Your task to perform on an android device: Open Reddit.com Image 0: 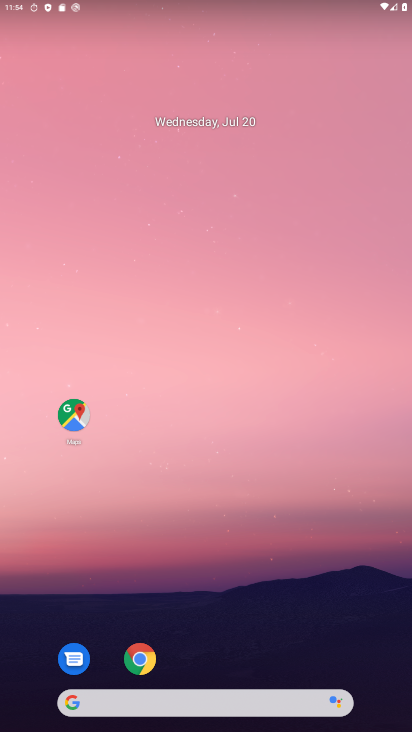
Step 0: click (265, 79)
Your task to perform on an android device: Open Reddit.com Image 1: 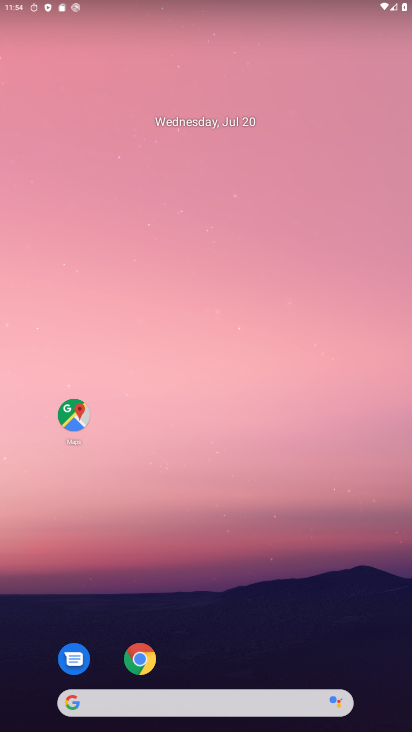
Step 1: press home button
Your task to perform on an android device: Open Reddit.com Image 2: 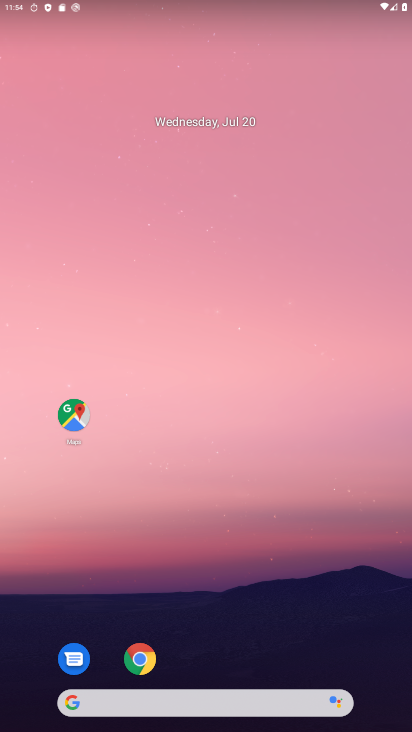
Step 2: drag from (272, 309) to (247, 25)
Your task to perform on an android device: Open Reddit.com Image 3: 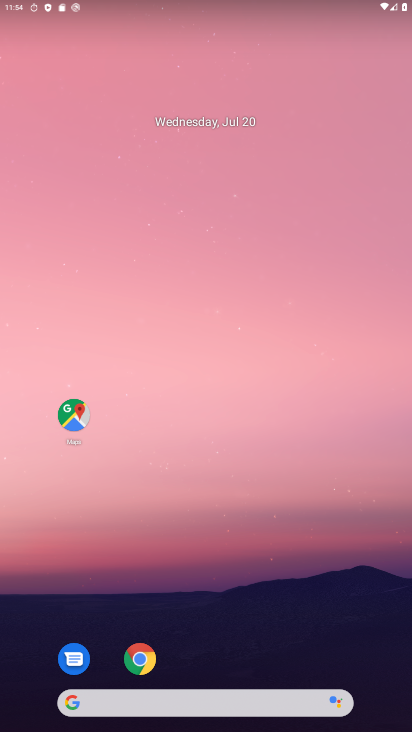
Step 3: drag from (304, 582) to (225, 25)
Your task to perform on an android device: Open Reddit.com Image 4: 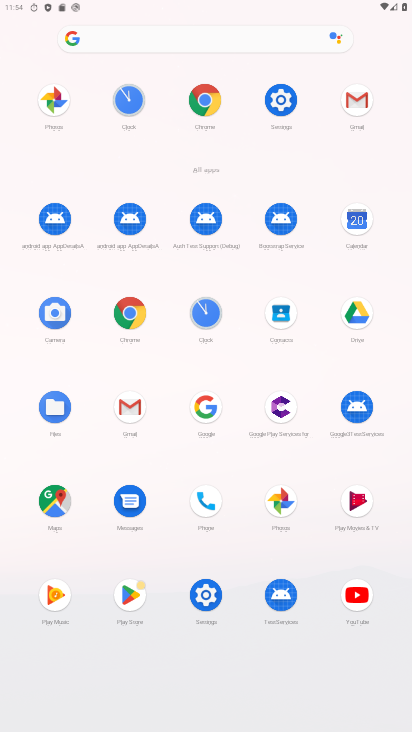
Step 4: click (123, 318)
Your task to perform on an android device: Open Reddit.com Image 5: 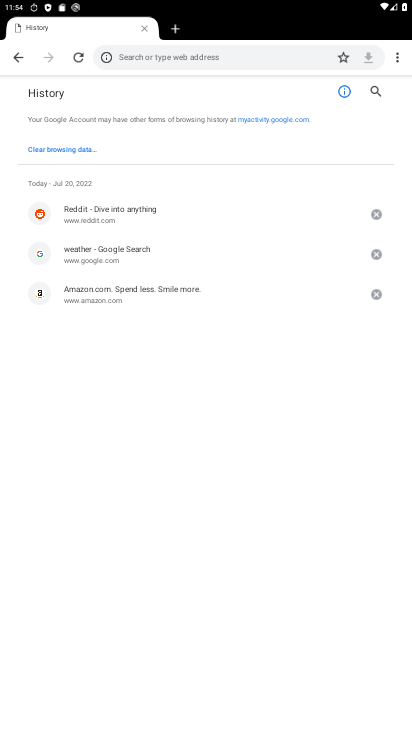
Step 5: click (130, 214)
Your task to perform on an android device: Open Reddit.com Image 6: 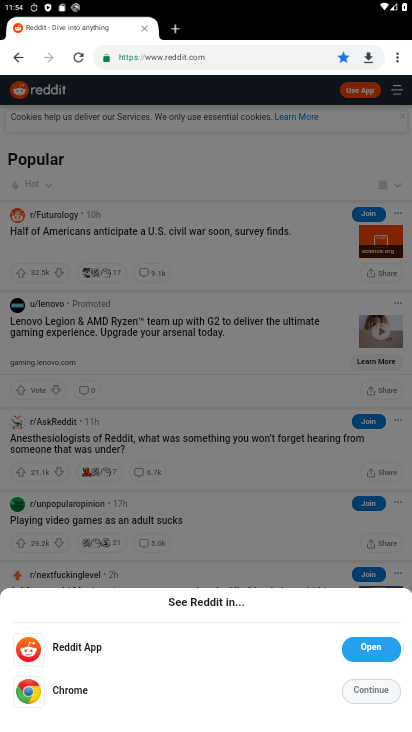
Step 6: task complete